Your task to perform on an android device: Open Android settings Image 0: 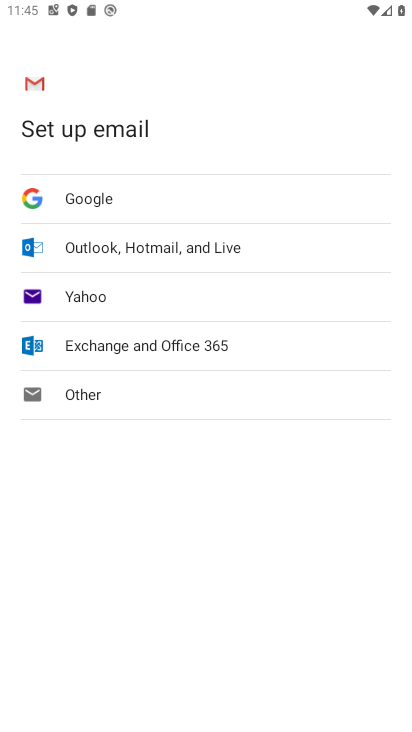
Step 0: press back button
Your task to perform on an android device: Open Android settings Image 1: 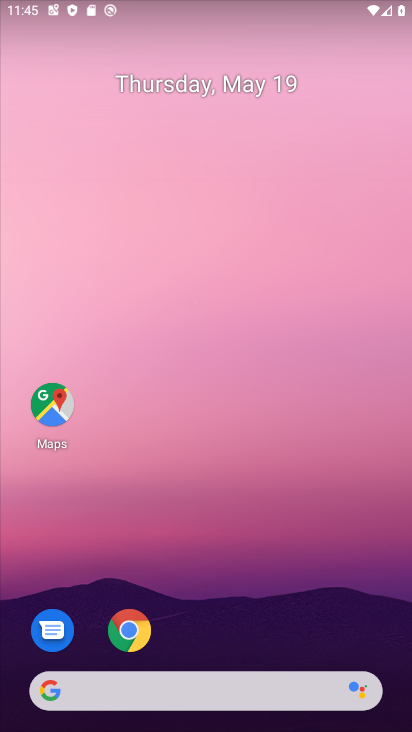
Step 1: drag from (252, 587) to (310, 115)
Your task to perform on an android device: Open Android settings Image 2: 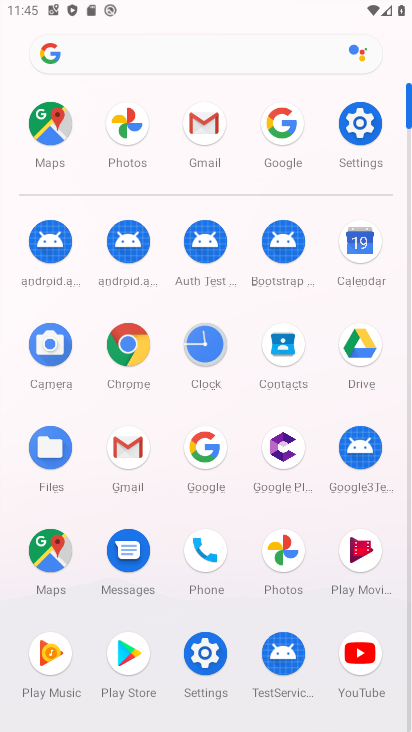
Step 2: click (360, 124)
Your task to perform on an android device: Open Android settings Image 3: 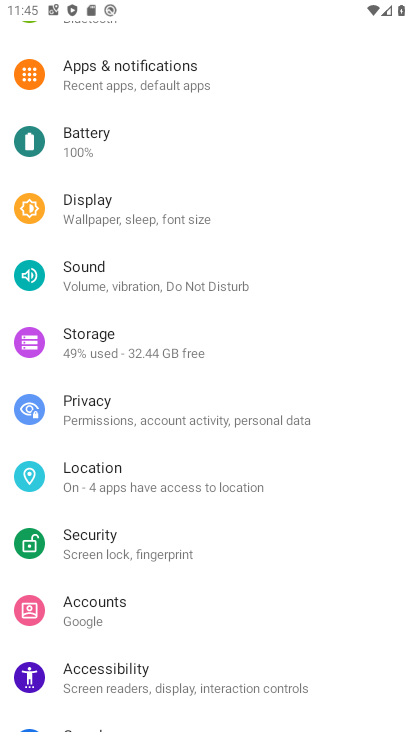
Step 3: task complete